Your task to perform on an android device: open a new tab in the chrome app Image 0: 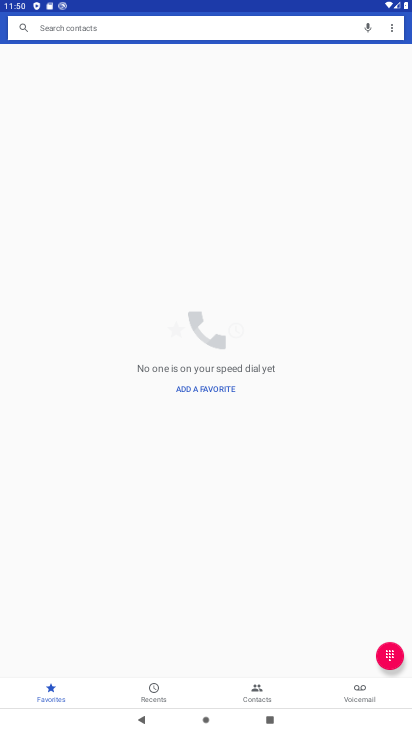
Step 0: press home button
Your task to perform on an android device: open a new tab in the chrome app Image 1: 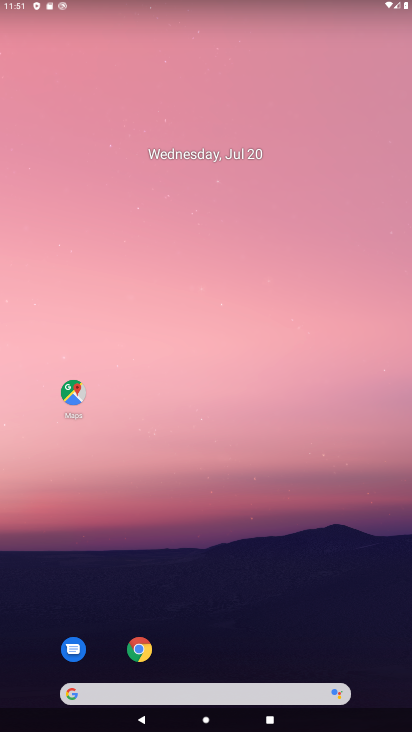
Step 1: click (131, 658)
Your task to perform on an android device: open a new tab in the chrome app Image 2: 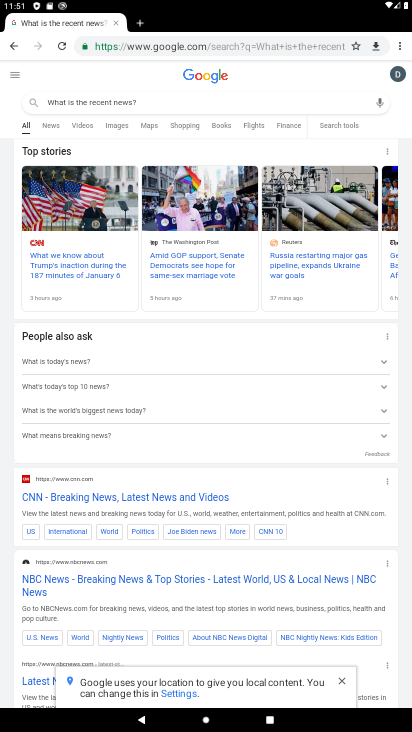
Step 2: click (146, 22)
Your task to perform on an android device: open a new tab in the chrome app Image 3: 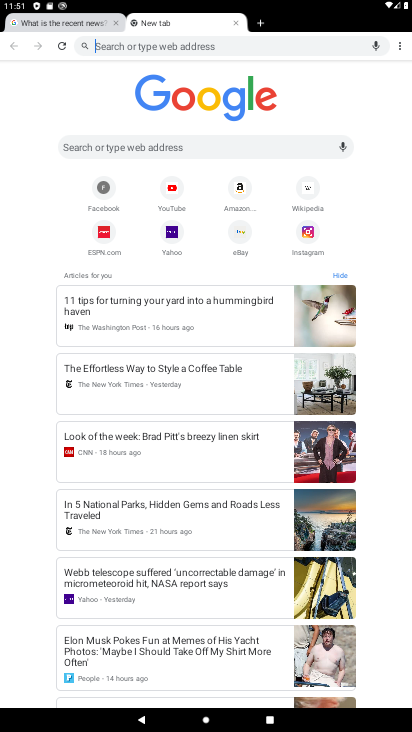
Step 3: task complete